Your task to perform on an android device: toggle priority inbox in the gmail app Image 0: 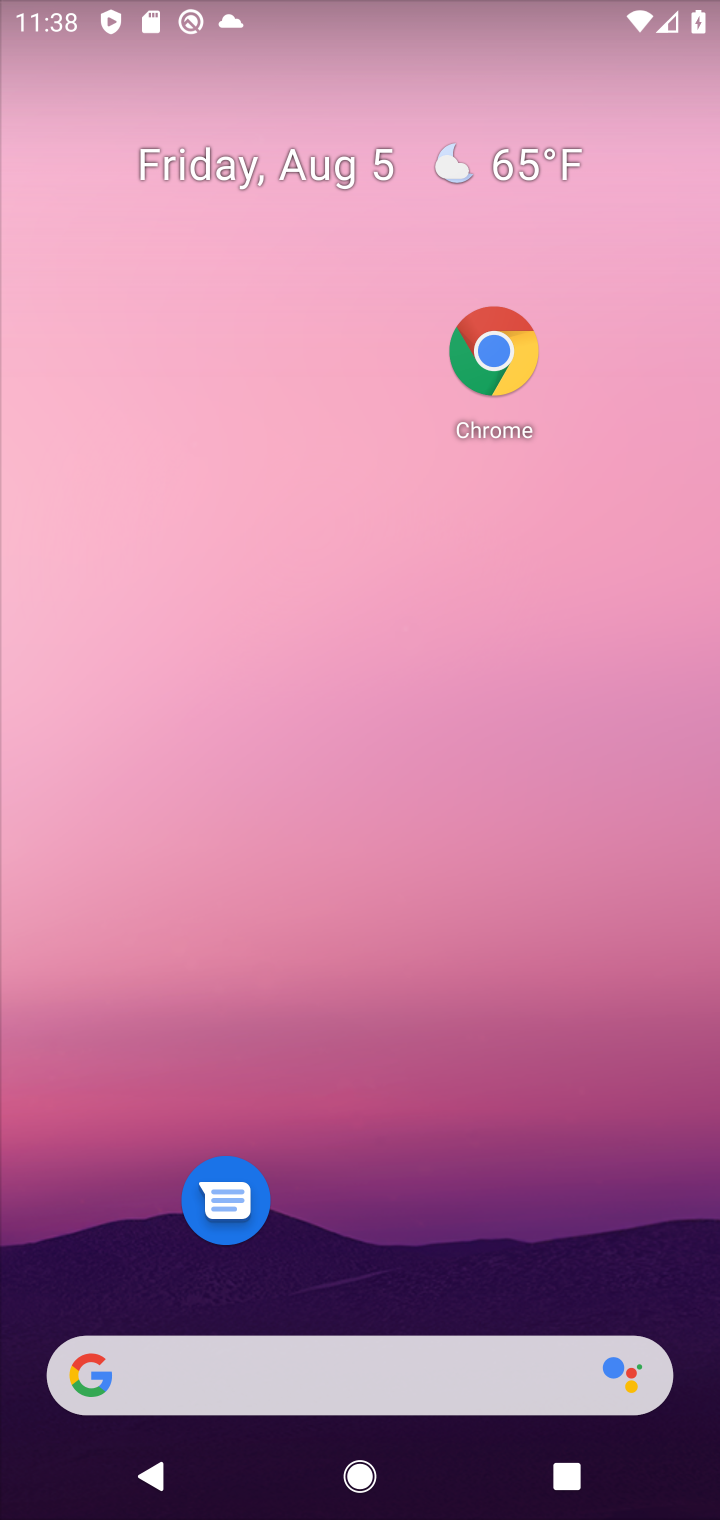
Step 0: drag from (272, 1460) to (486, 211)
Your task to perform on an android device: toggle priority inbox in the gmail app Image 1: 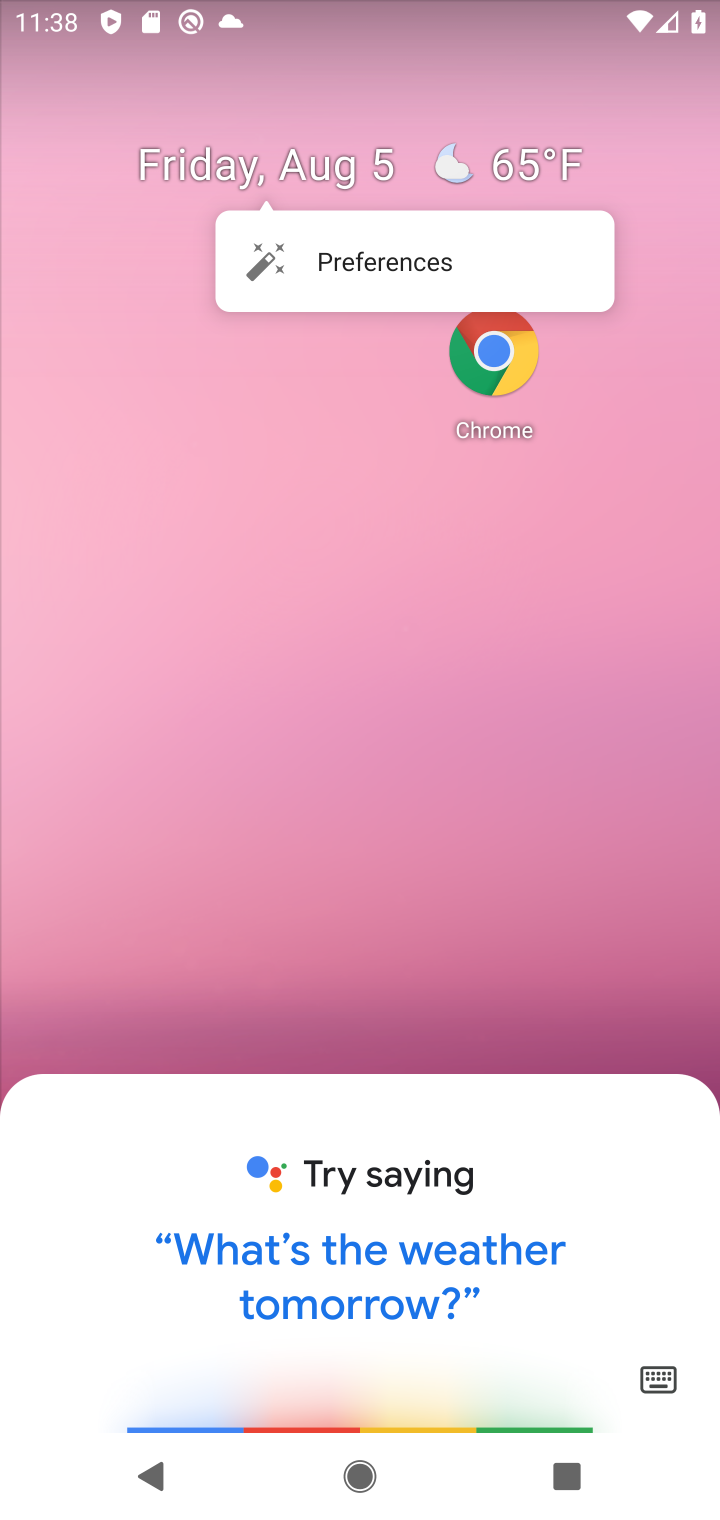
Step 1: press home button
Your task to perform on an android device: toggle priority inbox in the gmail app Image 2: 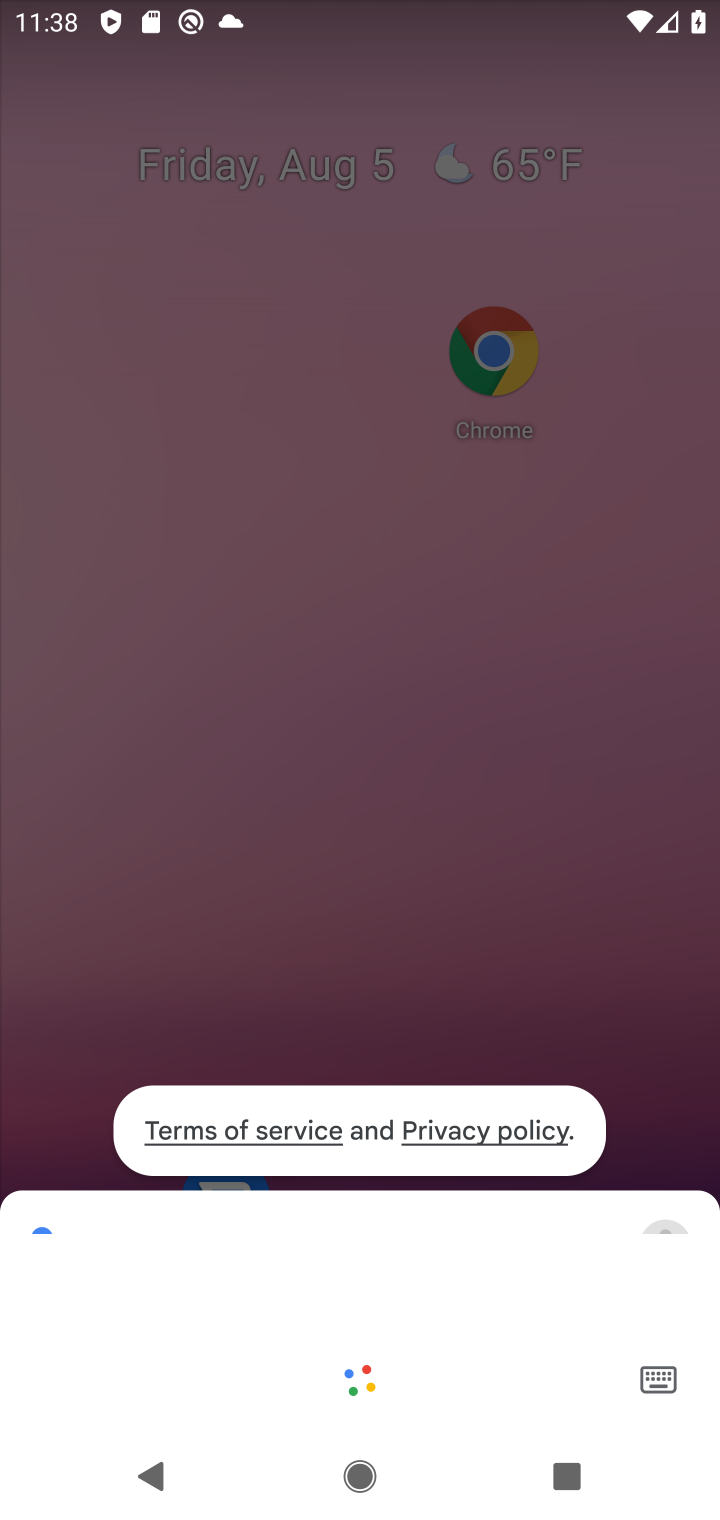
Step 2: press home button
Your task to perform on an android device: toggle priority inbox in the gmail app Image 3: 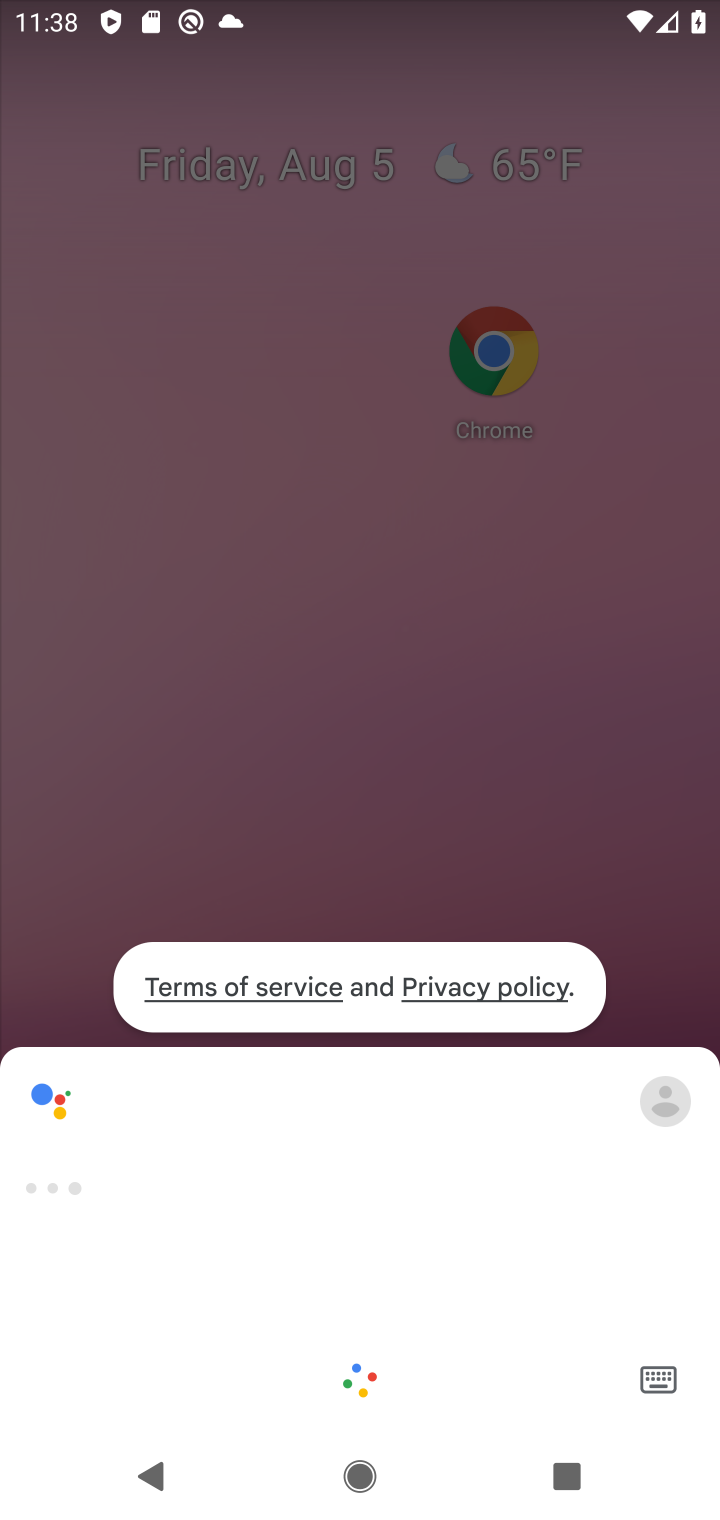
Step 3: press home button
Your task to perform on an android device: toggle priority inbox in the gmail app Image 4: 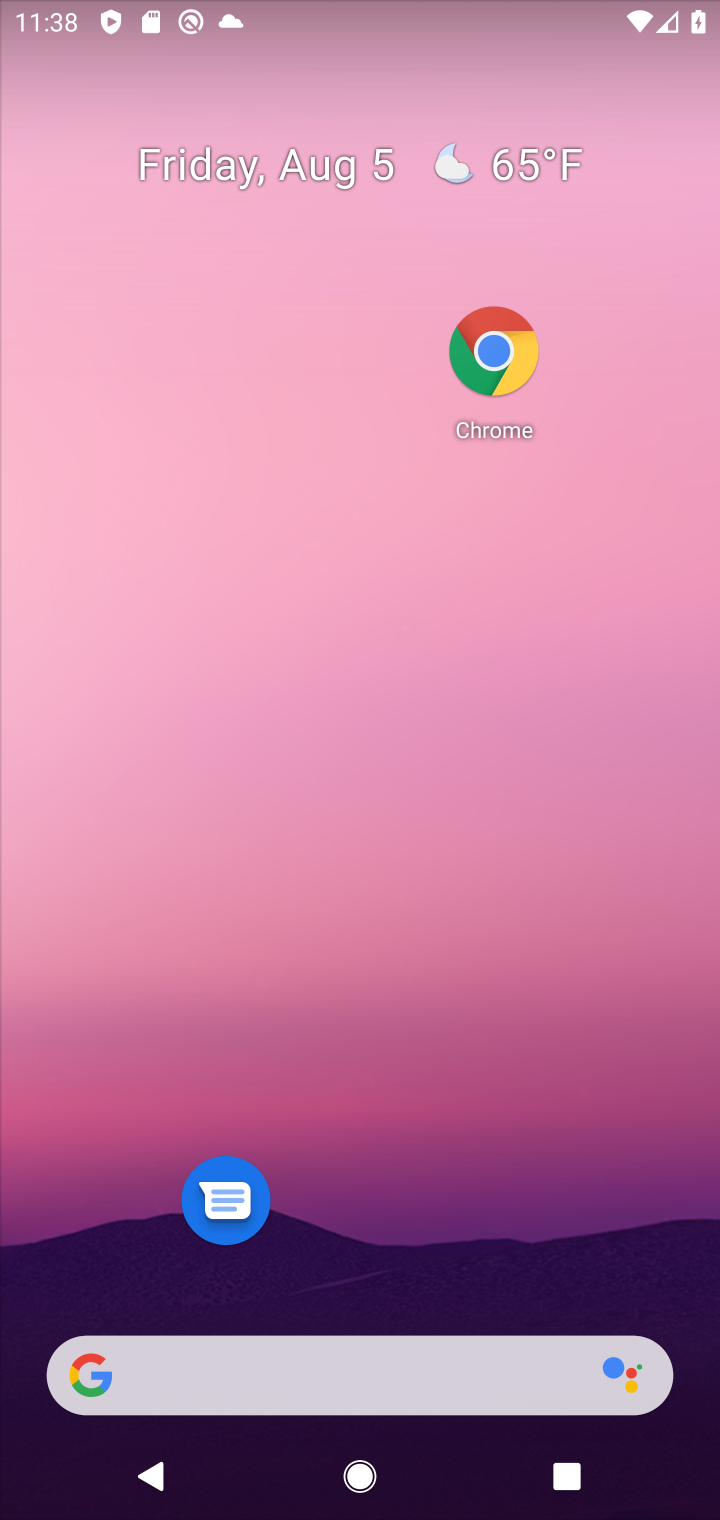
Step 4: drag from (332, 1408) to (491, 119)
Your task to perform on an android device: toggle priority inbox in the gmail app Image 5: 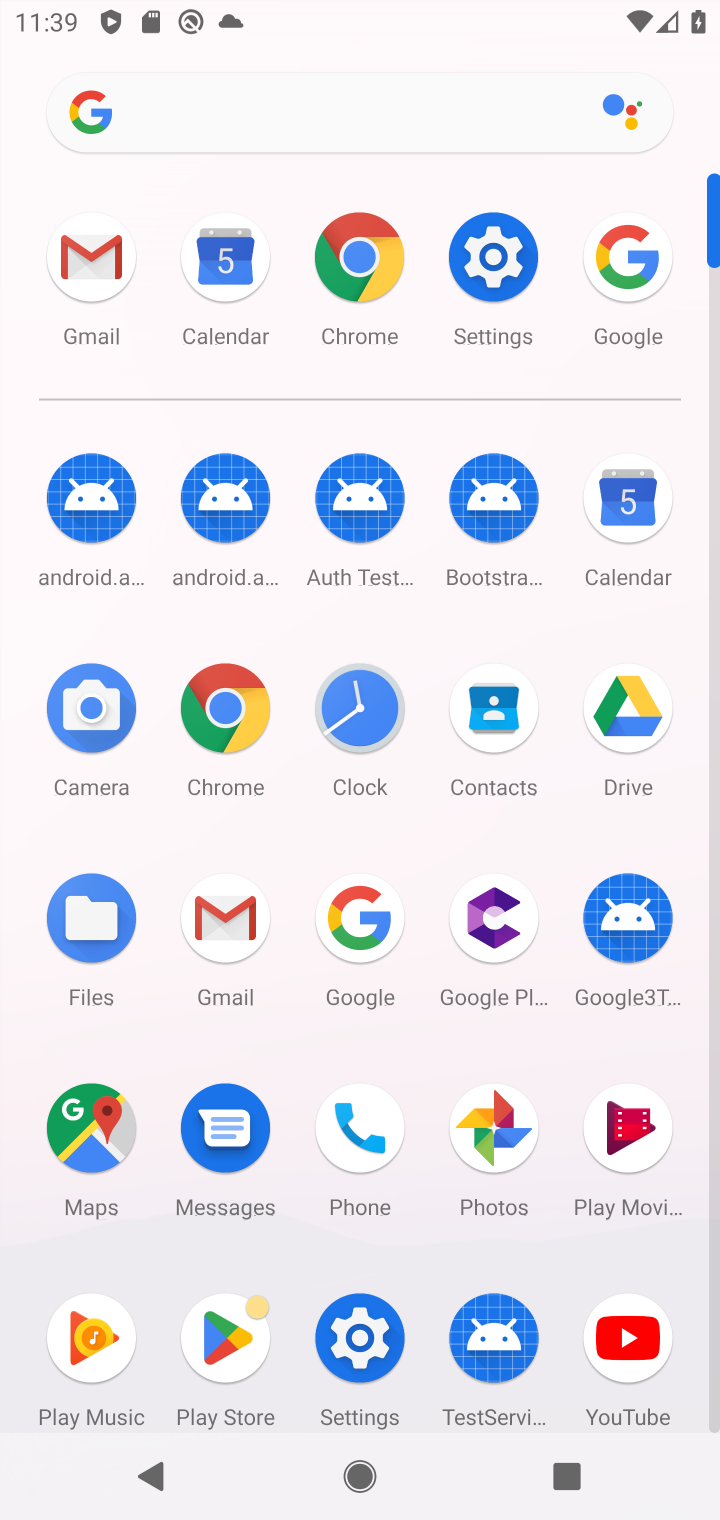
Step 5: click (229, 913)
Your task to perform on an android device: toggle priority inbox in the gmail app Image 6: 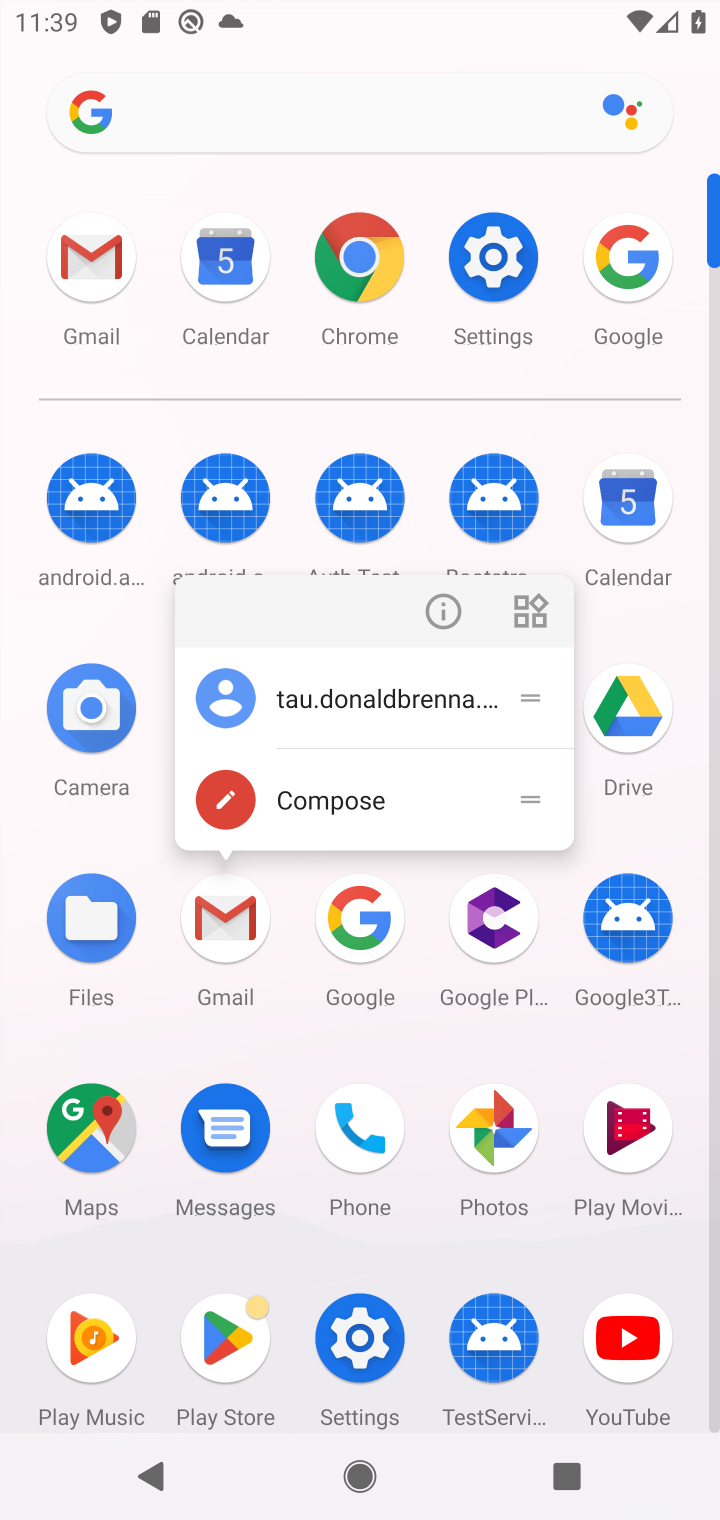
Step 6: click (217, 969)
Your task to perform on an android device: toggle priority inbox in the gmail app Image 7: 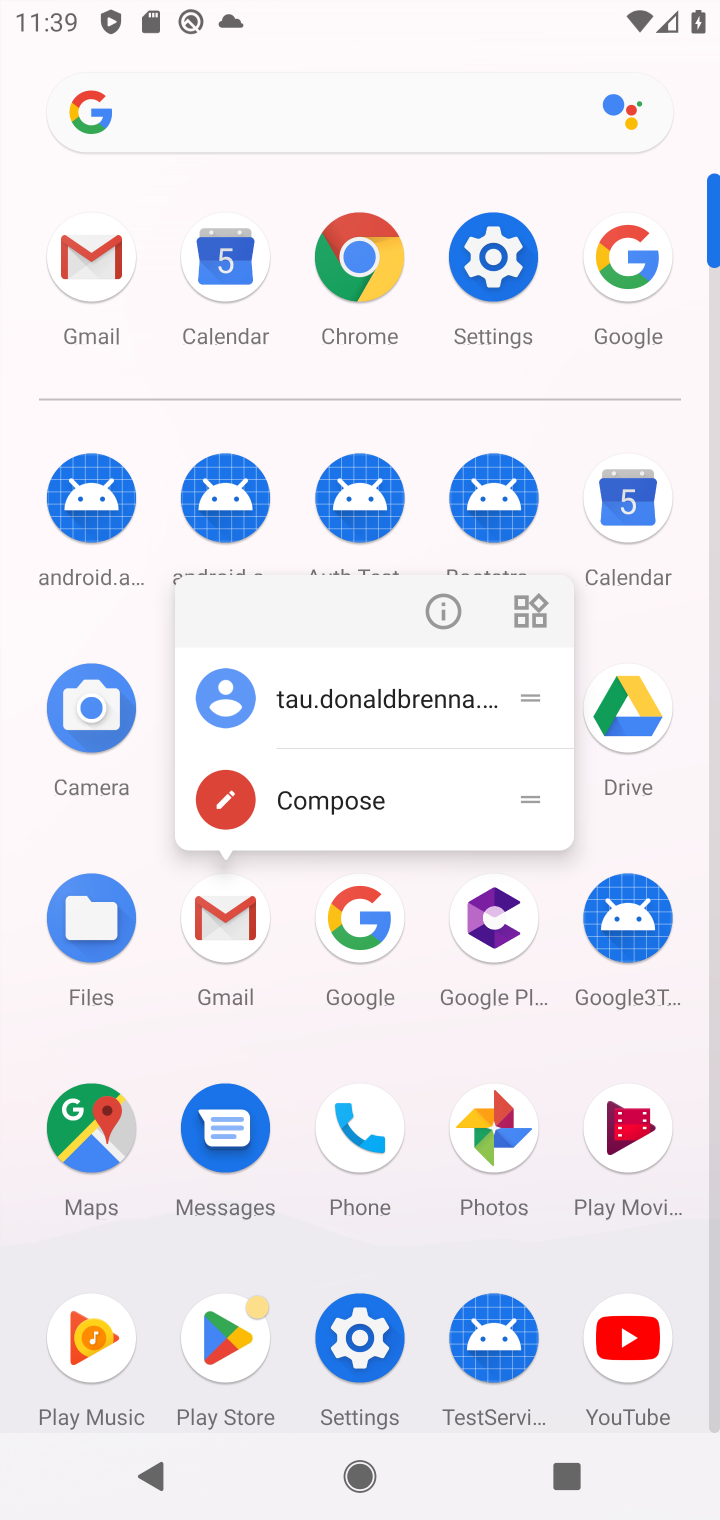
Step 7: click (217, 969)
Your task to perform on an android device: toggle priority inbox in the gmail app Image 8: 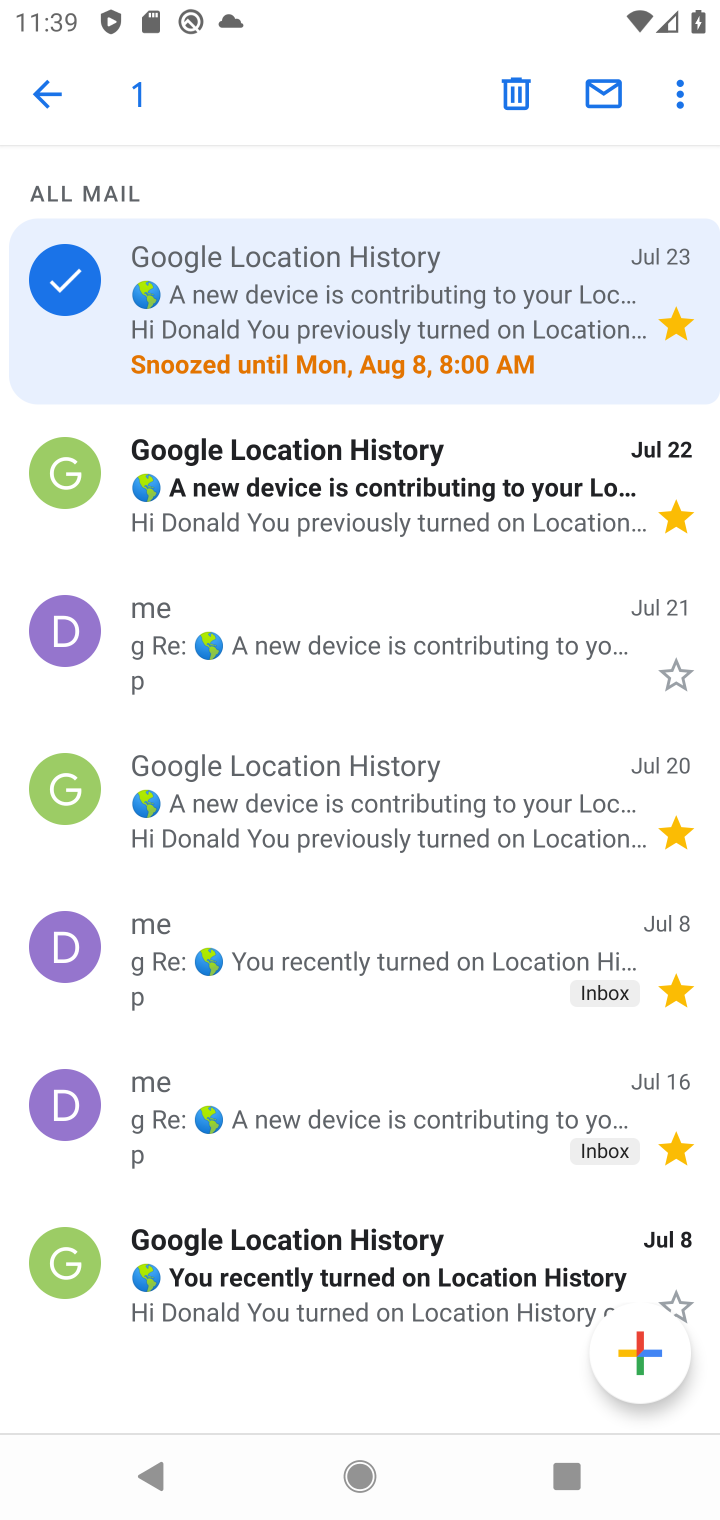
Step 8: click (65, 113)
Your task to perform on an android device: toggle priority inbox in the gmail app Image 9: 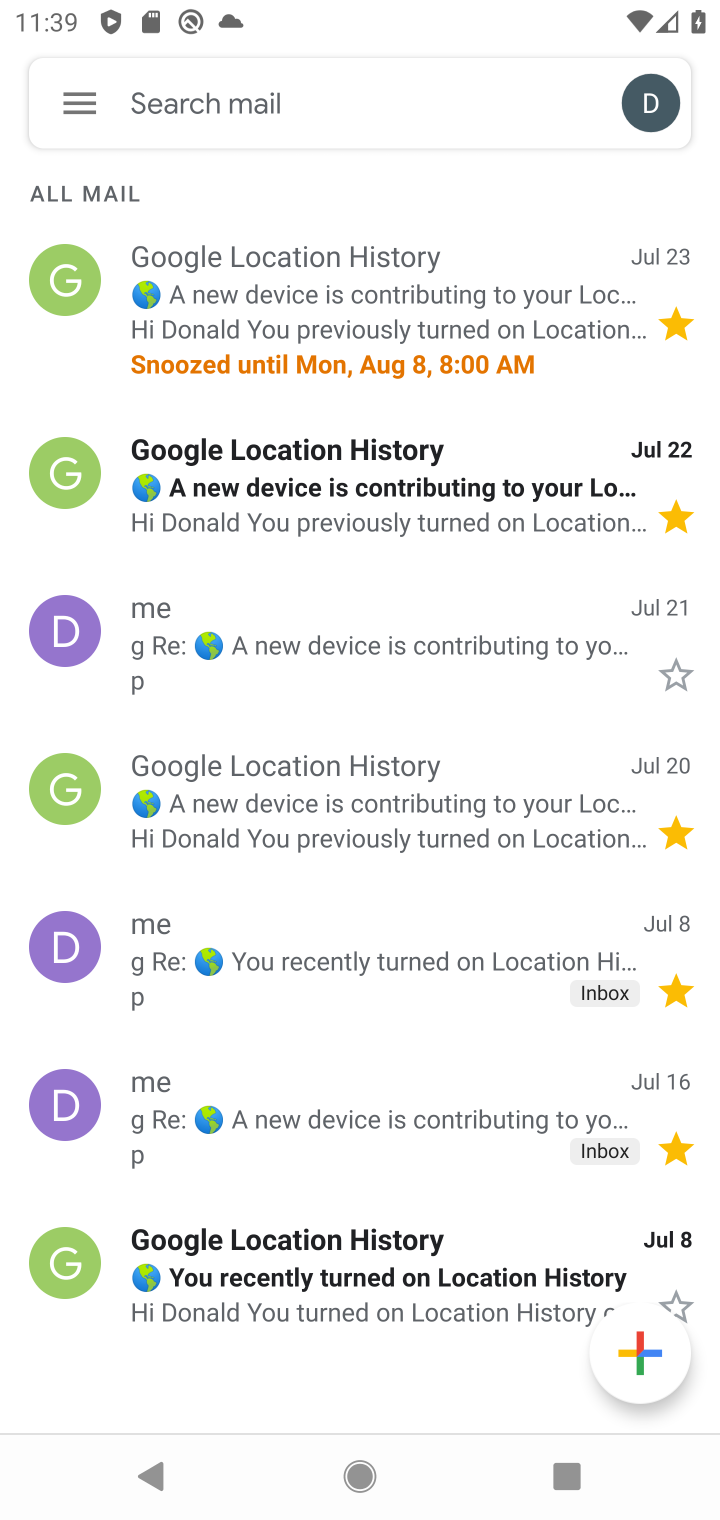
Step 9: click (61, 106)
Your task to perform on an android device: toggle priority inbox in the gmail app Image 10: 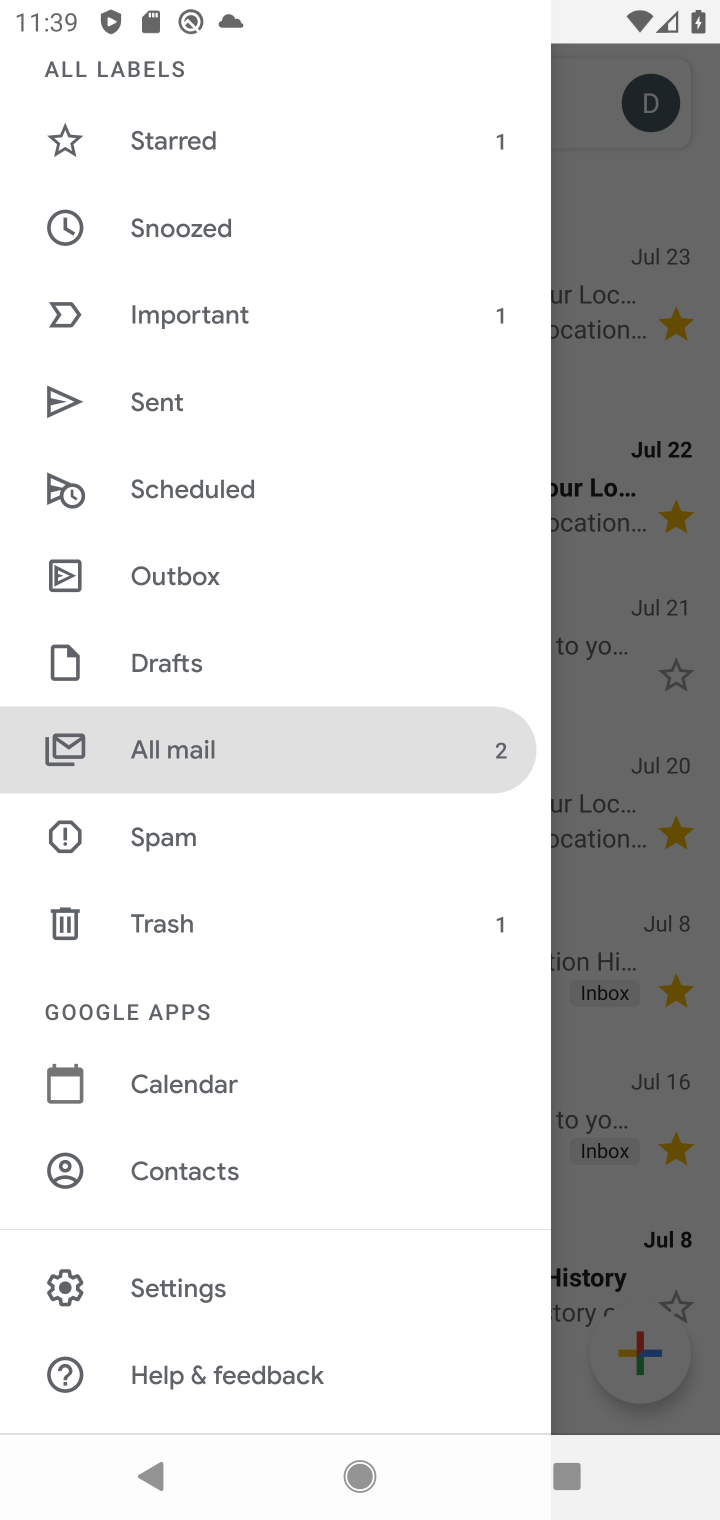
Step 10: click (218, 1324)
Your task to perform on an android device: toggle priority inbox in the gmail app Image 11: 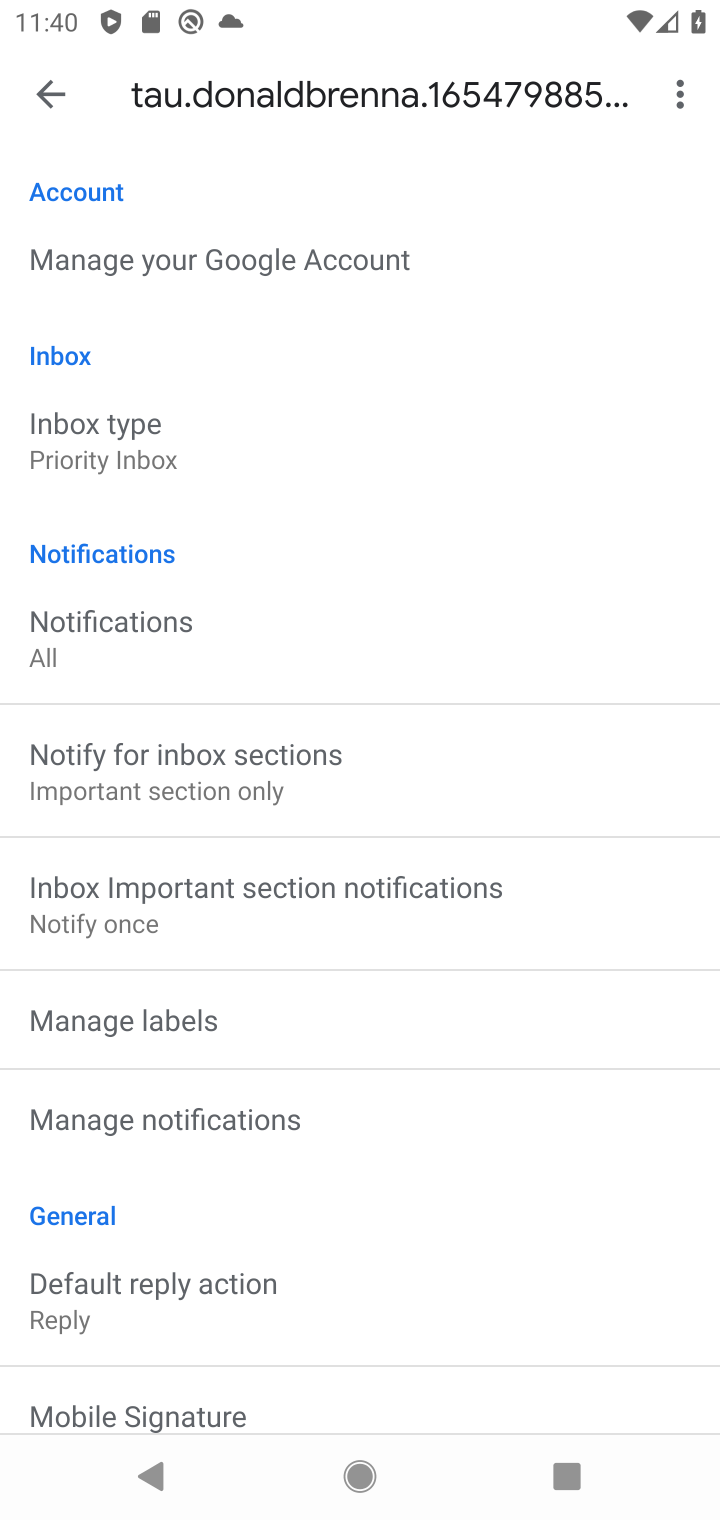
Step 11: click (214, 436)
Your task to perform on an android device: toggle priority inbox in the gmail app Image 12: 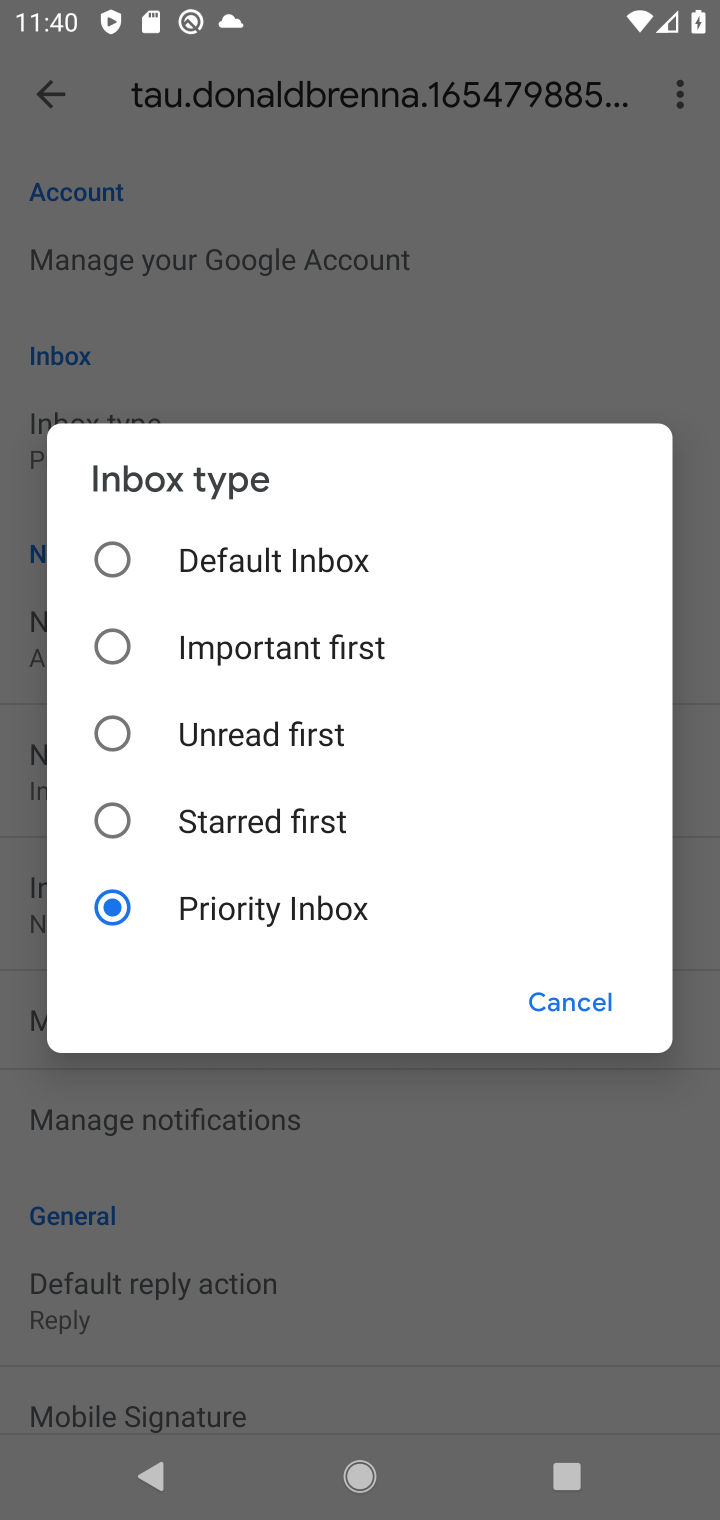
Step 12: click (195, 580)
Your task to perform on an android device: toggle priority inbox in the gmail app Image 13: 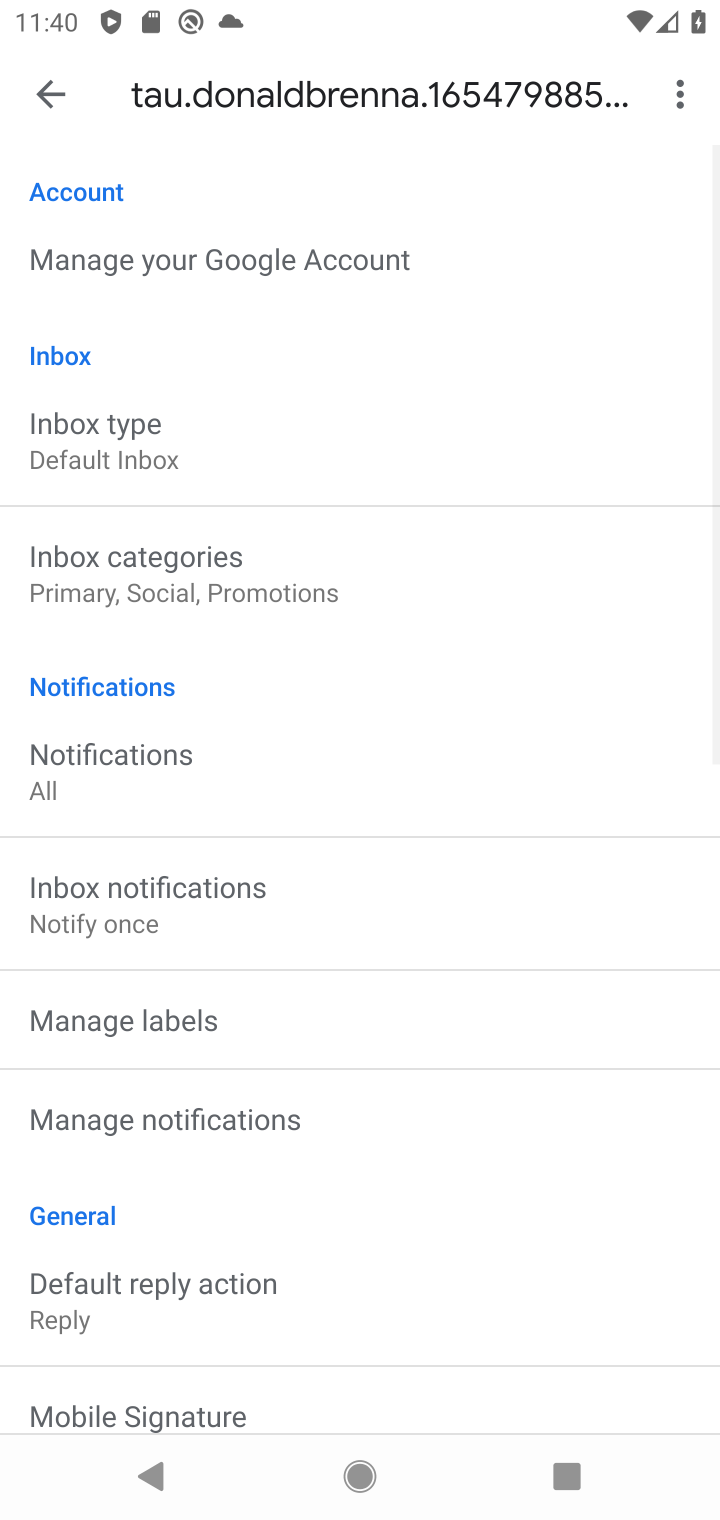
Step 13: task complete